Your task to perform on an android device: Go to battery settings Image 0: 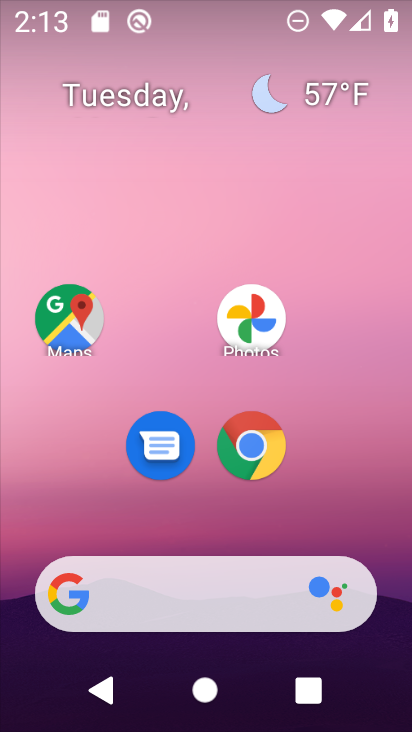
Step 0: drag from (365, 508) to (328, 96)
Your task to perform on an android device: Go to battery settings Image 1: 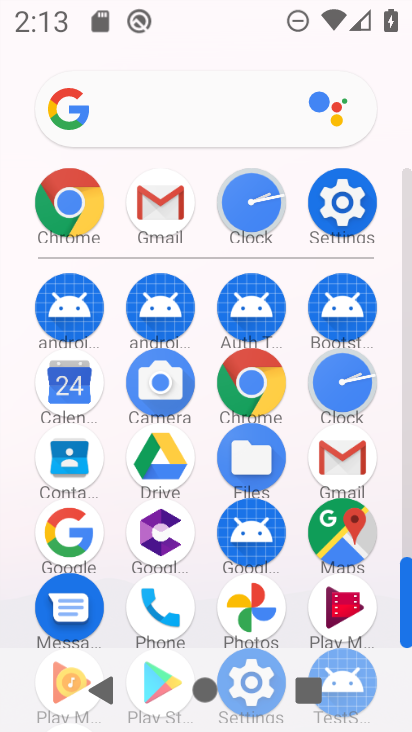
Step 1: click (340, 224)
Your task to perform on an android device: Go to battery settings Image 2: 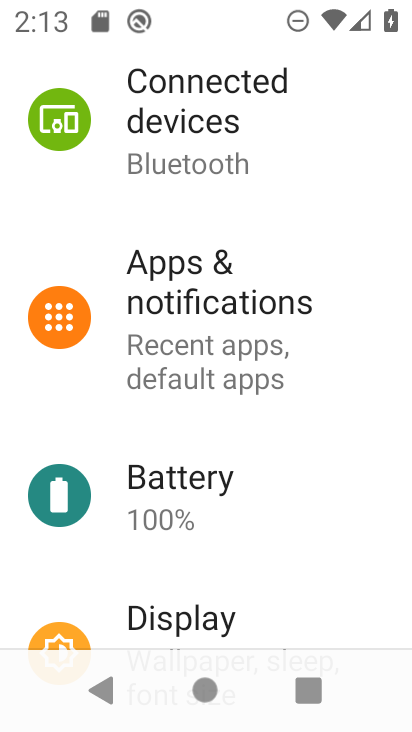
Step 2: drag from (341, 232) to (342, 340)
Your task to perform on an android device: Go to battery settings Image 3: 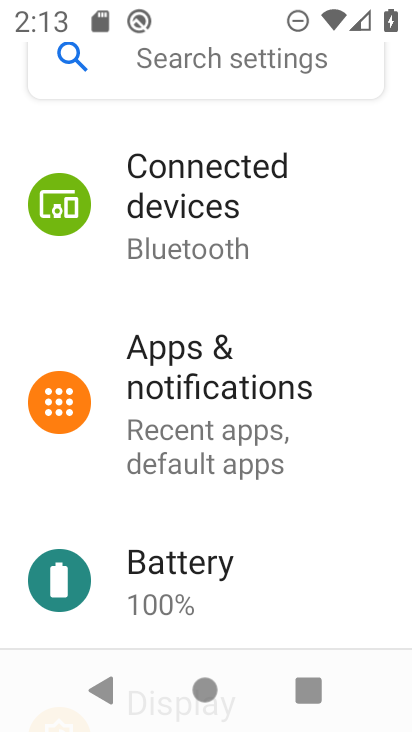
Step 3: drag from (319, 149) to (339, 316)
Your task to perform on an android device: Go to battery settings Image 4: 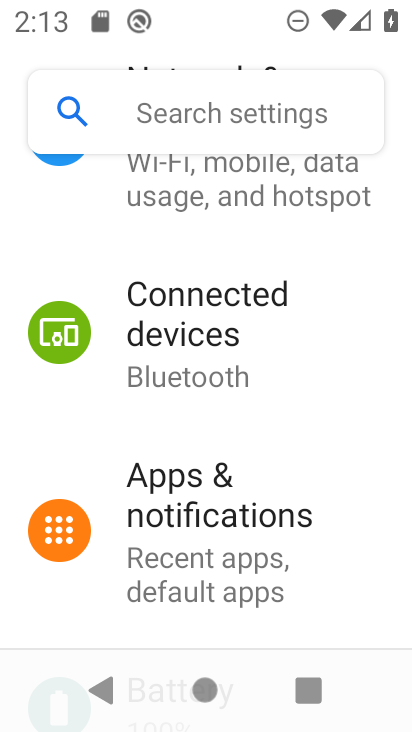
Step 4: drag from (330, 185) to (355, 355)
Your task to perform on an android device: Go to battery settings Image 5: 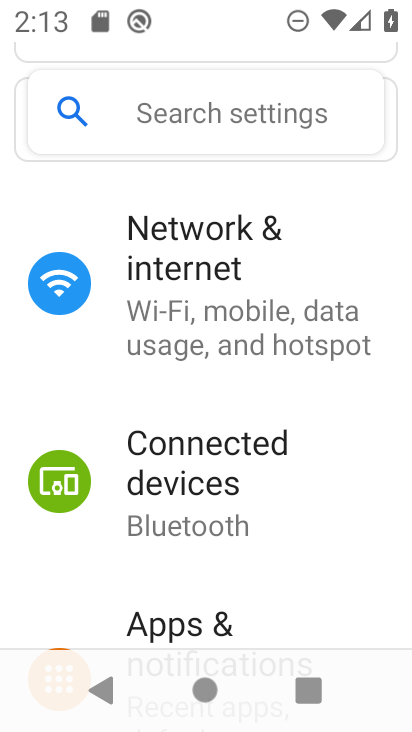
Step 5: drag from (335, 193) to (335, 372)
Your task to perform on an android device: Go to battery settings Image 6: 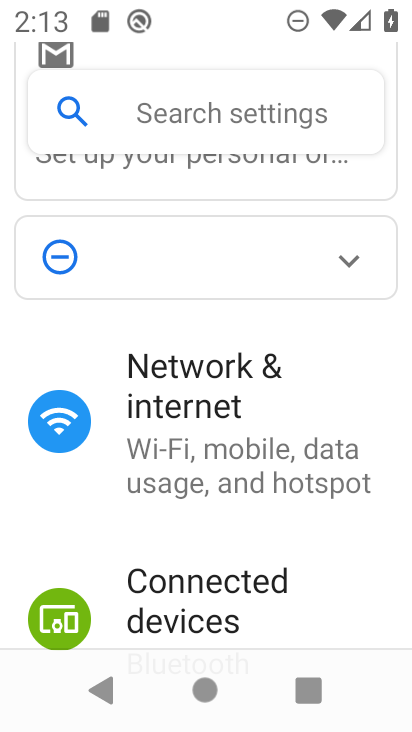
Step 6: drag from (337, 379) to (331, 189)
Your task to perform on an android device: Go to battery settings Image 7: 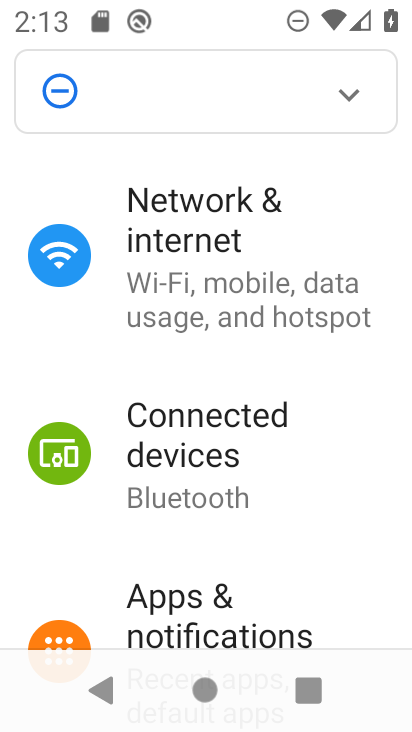
Step 7: drag from (349, 453) to (304, 251)
Your task to perform on an android device: Go to battery settings Image 8: 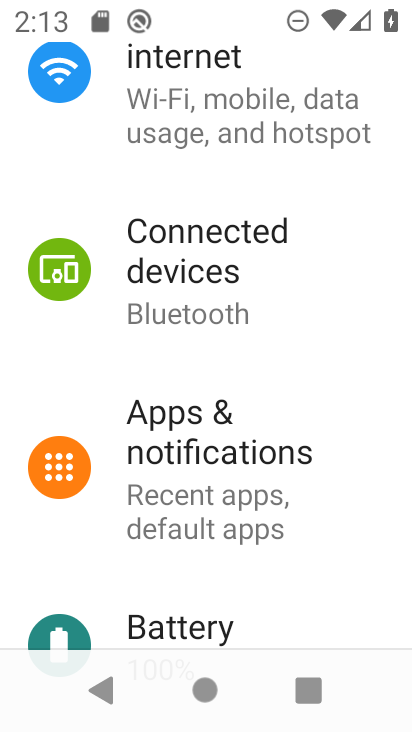
Step 8: drag from (321, 418) to (308, 260)
Your task to perform on an android device: Go to battery settings Image 9: 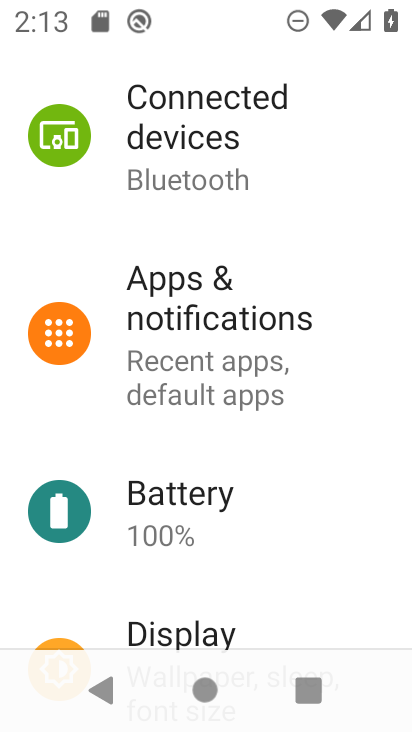
Step 9: drag from (316, 480) to (316, 275)
Your task to perform on an android device: Go to battery settings Image 10: 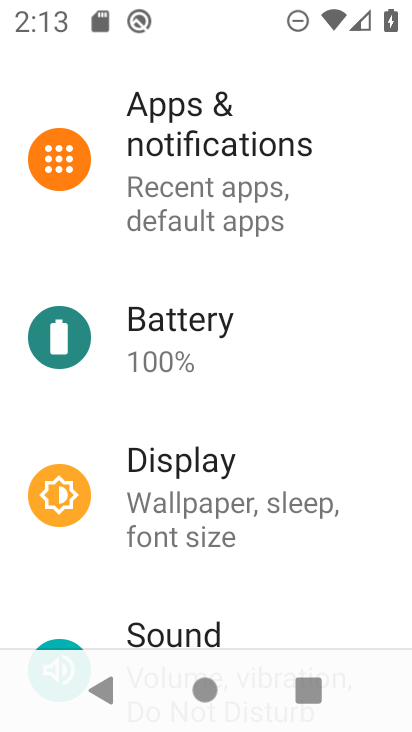
Step 10: drag from (341, 432) to (331, 284)
Your task to perform on an android device: Go to battery settings Image 11: 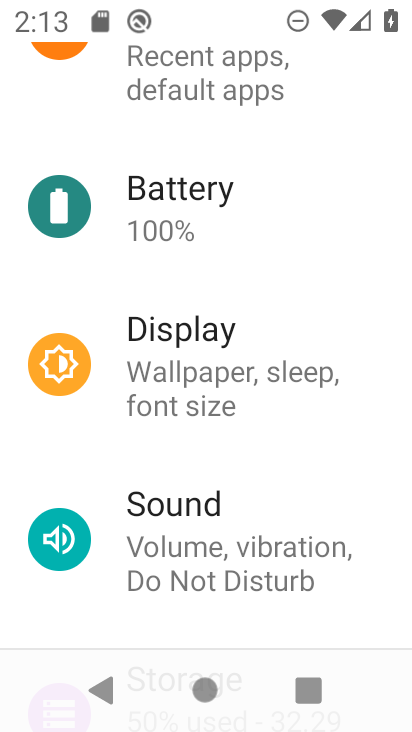
Step 11: drag from (376, 441) to (339, 272)
Your task to perform on an android device: Go to battery settings Image 12: 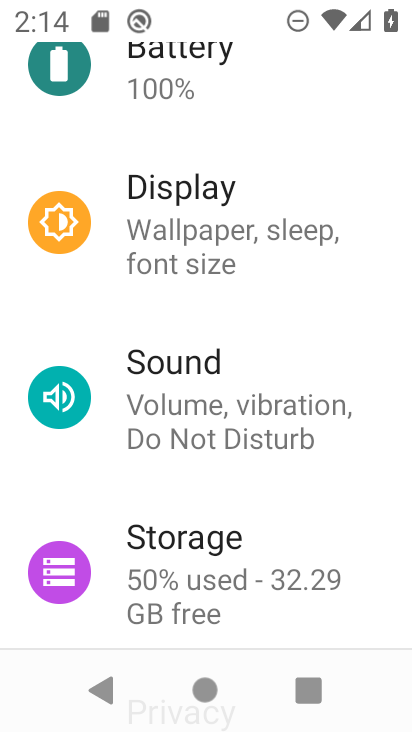
Step 12: drag from (340, 520) to (328, 332)
Your task to perform on an android device: Go to battery settings Image 13: 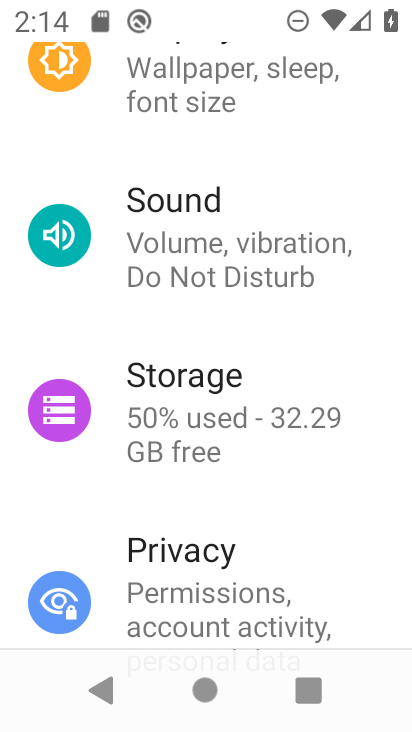
Step 13: drag from (312, 541) to (313, 383)
Your task to perform on an android device: Go to battery settings Image 14: 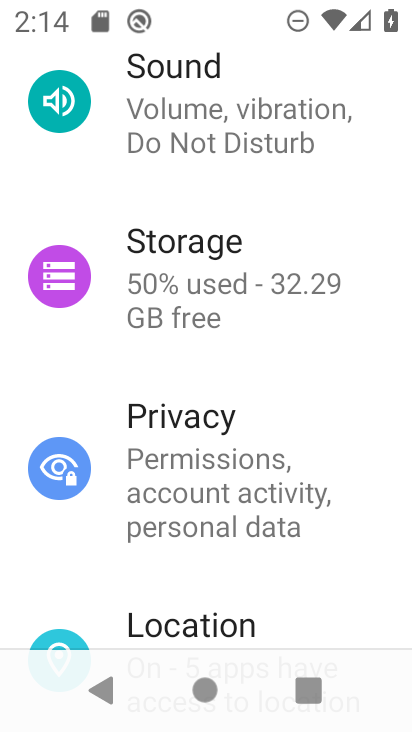
Step 14: drag from (329, 569) to (324, 416)
Your task to perform on an android device: Go to battery settings Image 15: 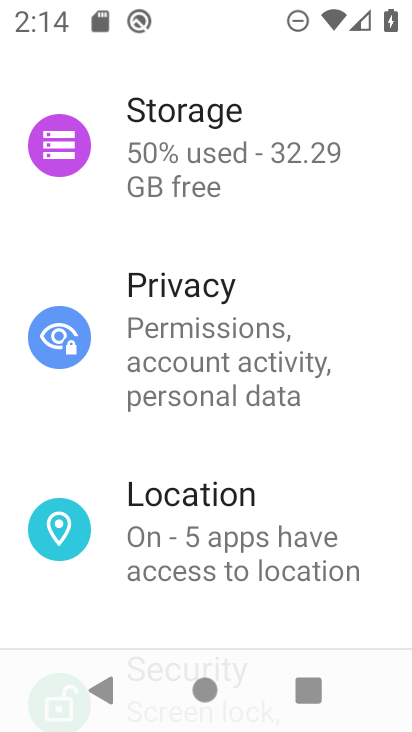
Step 15: drag from (337, 291) to (361, 537)
Your task to perform on an android device: Go to battery settings Image 16: 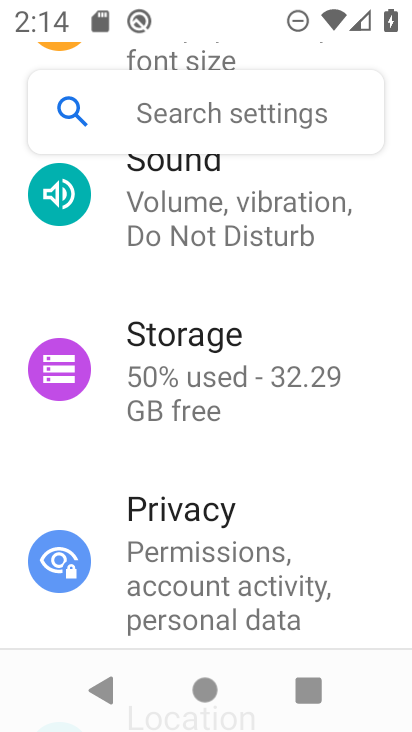
Step 16: drag from (345, 264) to (335, 477)
Your task to perform on an android device: Go to battery settings Image 17: 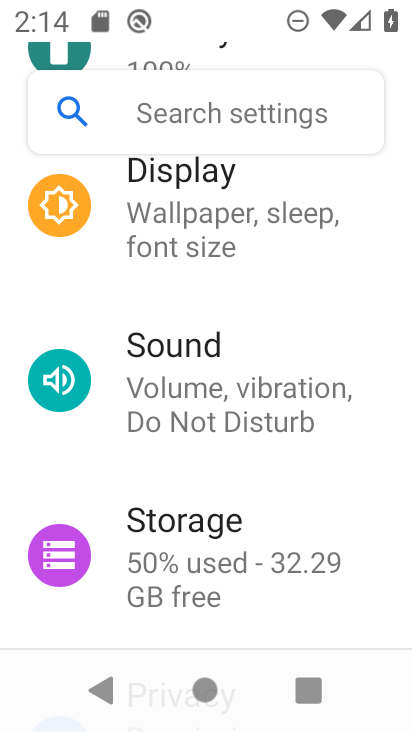
Step 17: drag from (332, 262) to (324, 444)
Your task to perform on an android device: Go to battery settings Image 18: 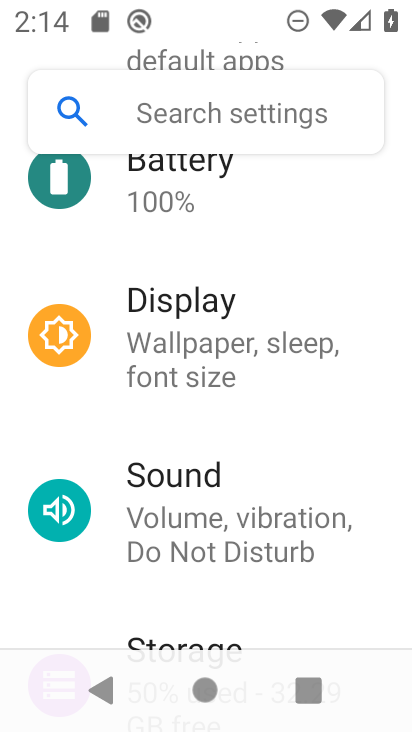
Step 18: drag from (312, 248) to (307, 456)
Your task to perform on an android device: Go to battery settings Image 19: 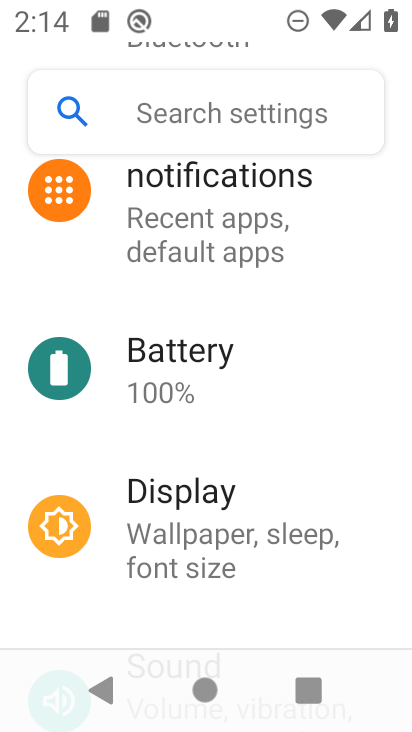
Step 19: click (219, 398)
Your task to perform on an android device: Go to battery settings Image 20: 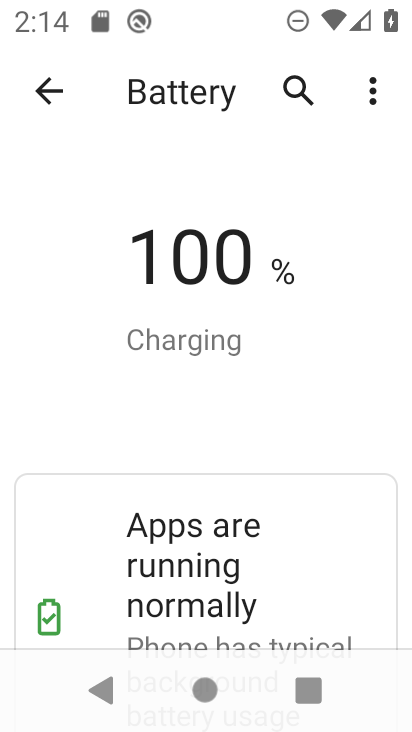
Step 20: task complete